Your task to perform on an android device: Check the news Image 0: 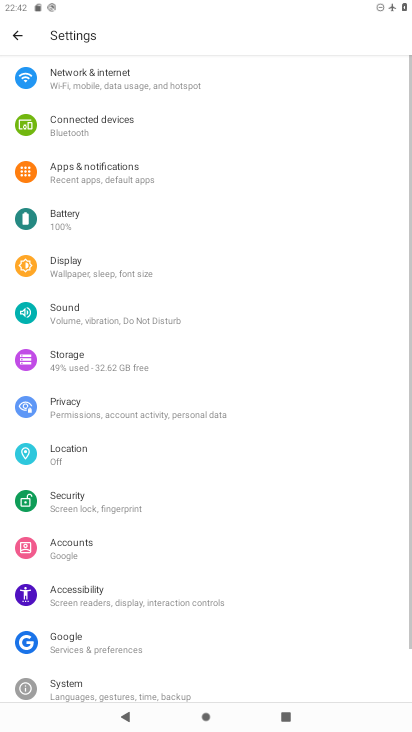
Step 0: press home button
Your task to perform on an android device: Check the news Image 1: 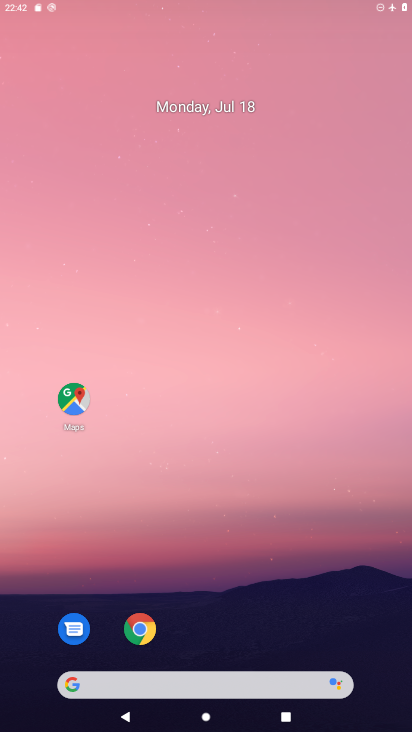
Step 1: drag from (301, 596) to (292, 95)
Your task to perform on an android device: Check the news Image 2: 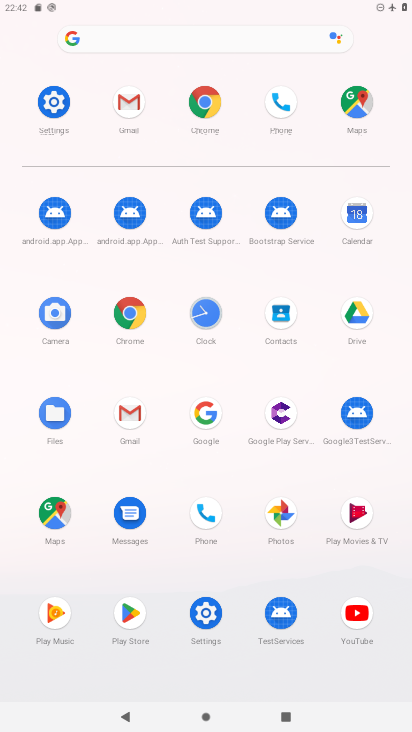
Step 2: click (206, 98)
Your task to perform on an android device: Check the news Image 3: 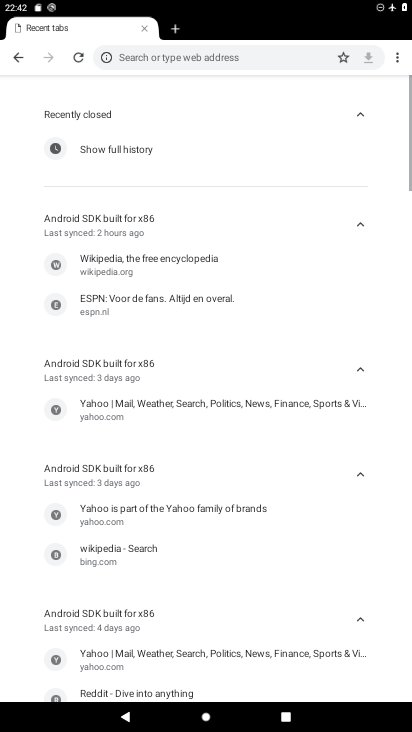
Step 3: click (195, 59)
Your task to perform on an android device: Check the news Image 4: 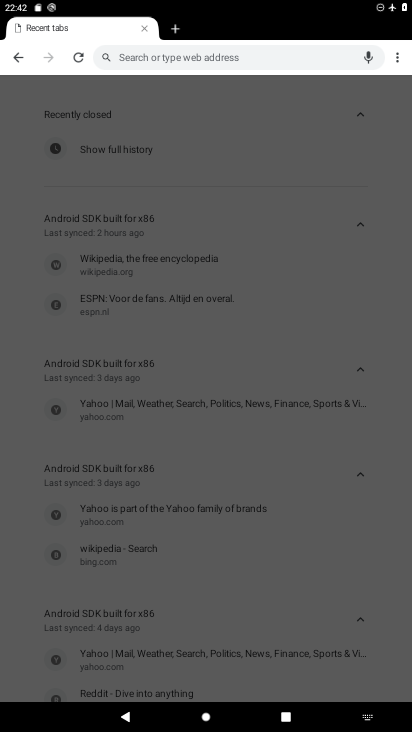
Step 4: type "news"
Your task to perform on an android device: Check the news Image 5: 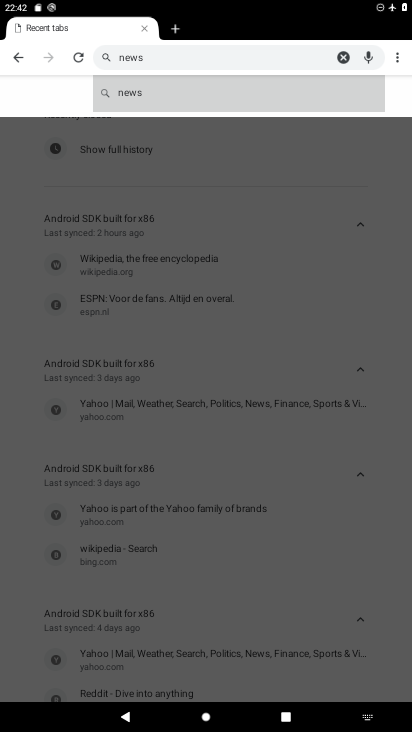
Step 5: click (297, 107)
Your task to perform on an android device: Check the news Image 6: 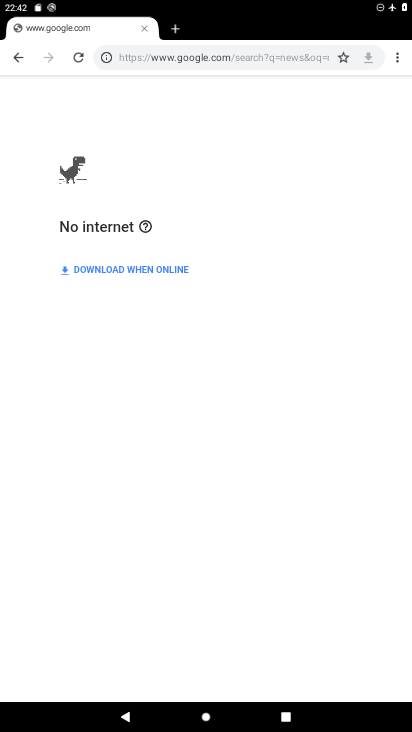
Step 6: task complete